Your task to perform on an android device: turn off location Image 0: 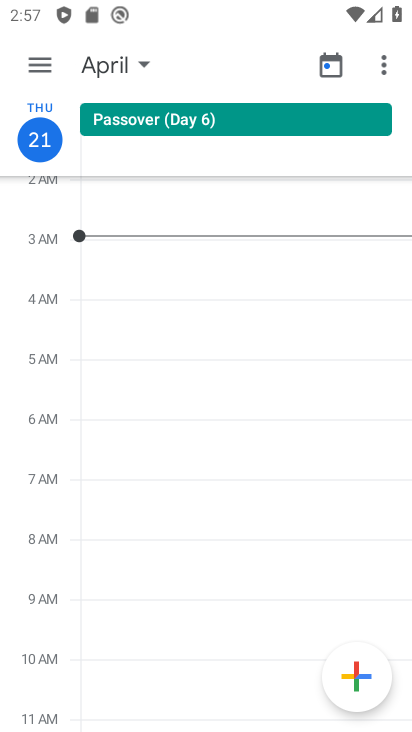
Step 0: press home button
Your task to perform on an android device: turn off location Image 1: 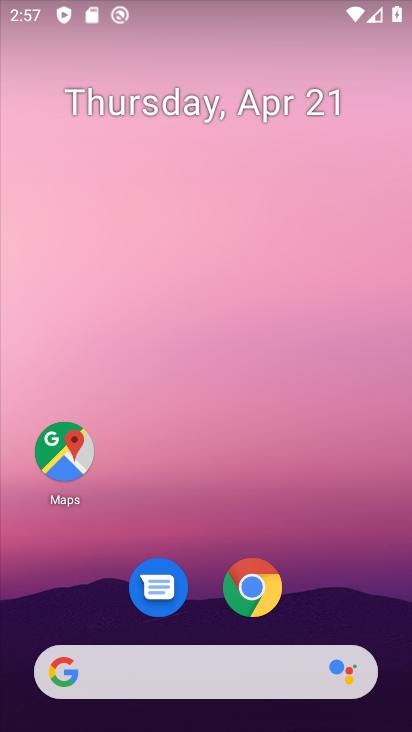
Step 1: drag from (237, 21) to (204, 543)
Your task to perform on an android device: turn off location Image 2: 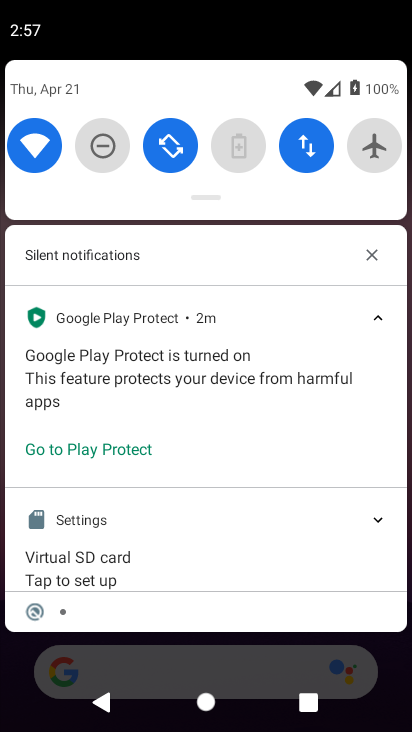
Step 2: drag from (219, 182) to (191, 605)
Your task to perform on an android device: turn off location Image 3: 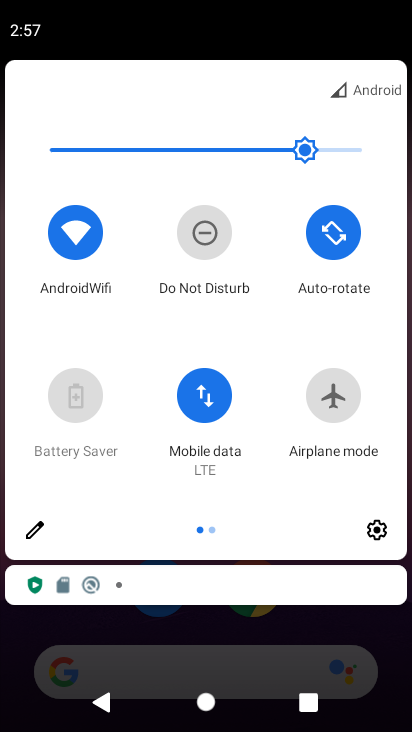
Step 3: drag from (280, 480) to (39, 486)
Your task to perform on an android device: turn off location Image 4: 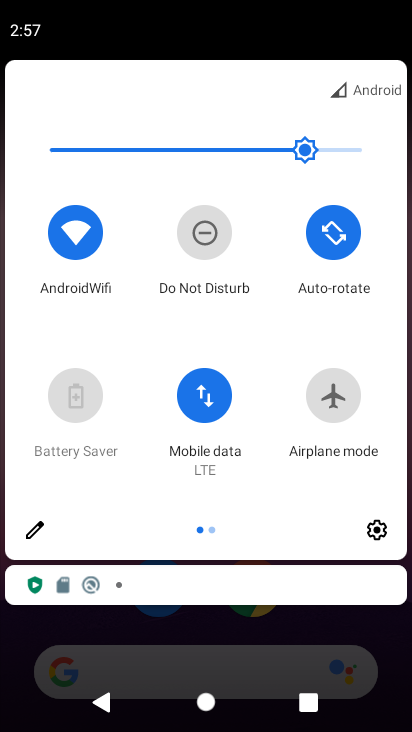
Step 4: press home button
Your task to perform on an android device: turn off location Image 5: 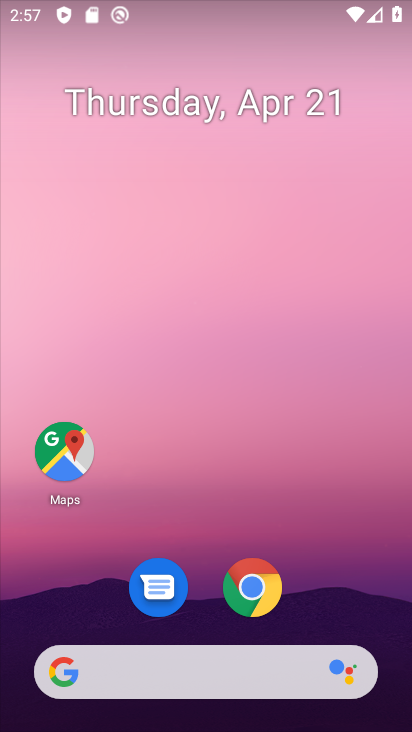
Step 5: drag from (202, 435) to (182, 95)
Your task to perform on an android device: turn off location Image 6: 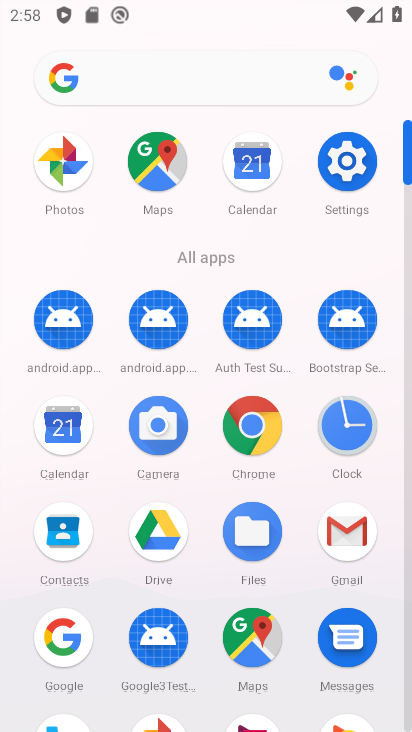
Step 6: click (340, 168)
Your task to perform on an android device: turn off location Image 7: 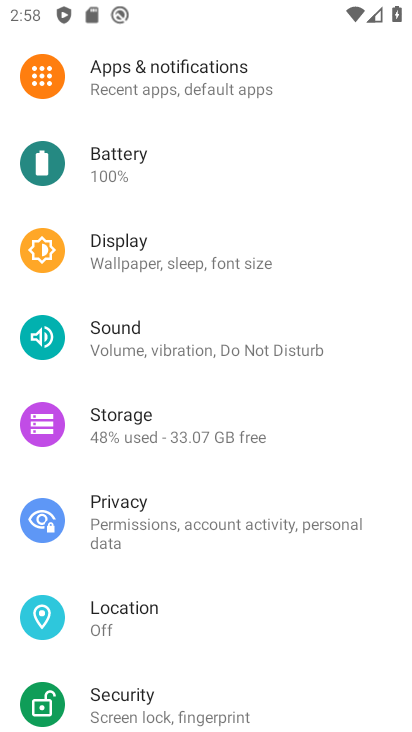
Step 7: click (87, 613)
Your task to perform on an android device: turn off location Image 8: 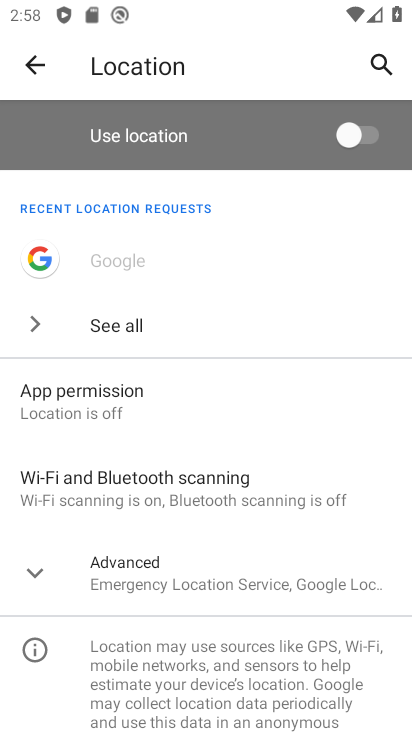
Step 8: task complete